Your task to perform on an android device: check the backup settings in the google photos Image 0: 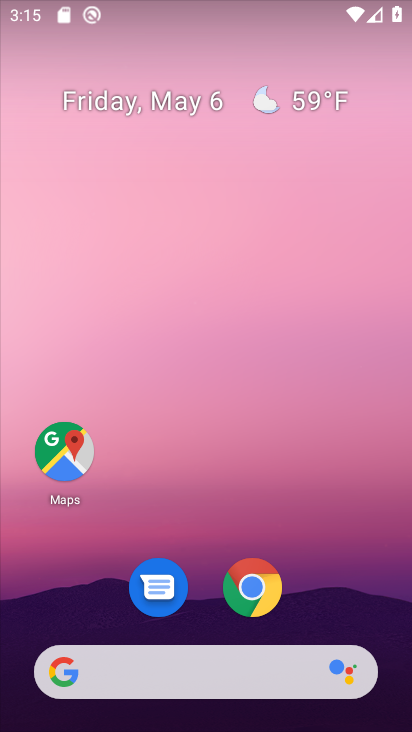
Step 0: drag from (295, 491) to (303, 11)
Your task to perform on an android device: check the backup settings in the google photos Image 1: 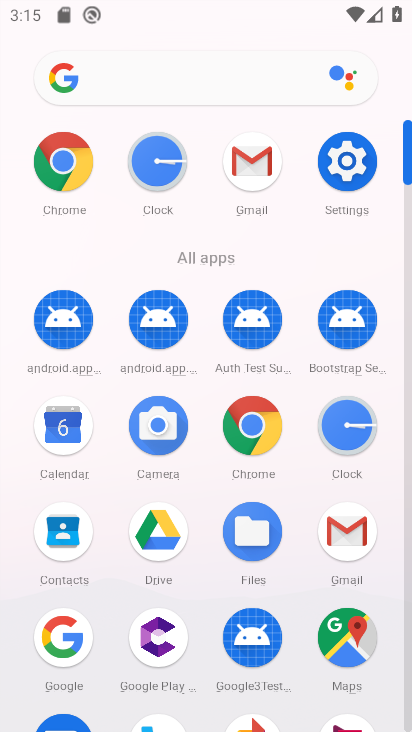
Step 1: drag from (279, 569) to (299, 115)
Your task to perform on an android device: check the backup settings in the google photos Image 2: 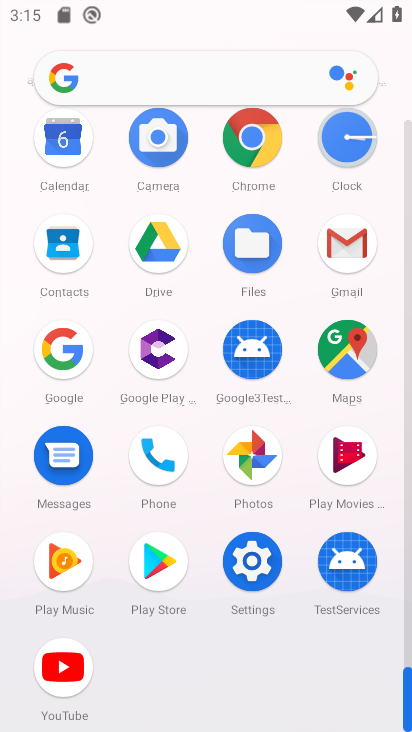
Step 2: click (238, 435)
Your task to perform on an android device: check the backup settings in the google photos Image 3: 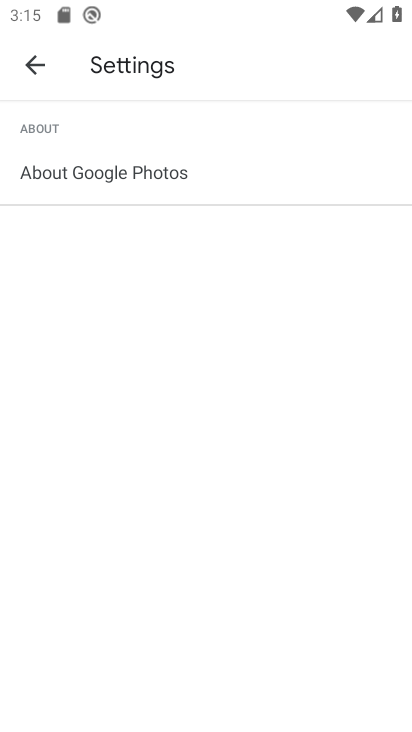
Step 3: click (41, 68)
Your task to perform on an android device: check the backup settings in the google photos Image 4: 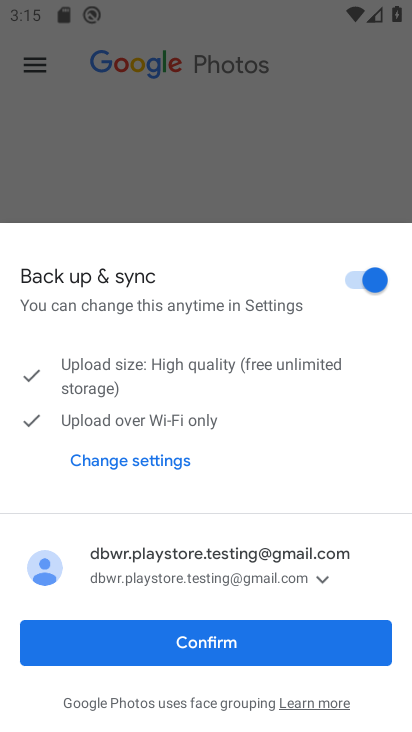
Step 4: click (212, 641)
Your task to perform on an android device: check the backup settings in the google photos Image 5: 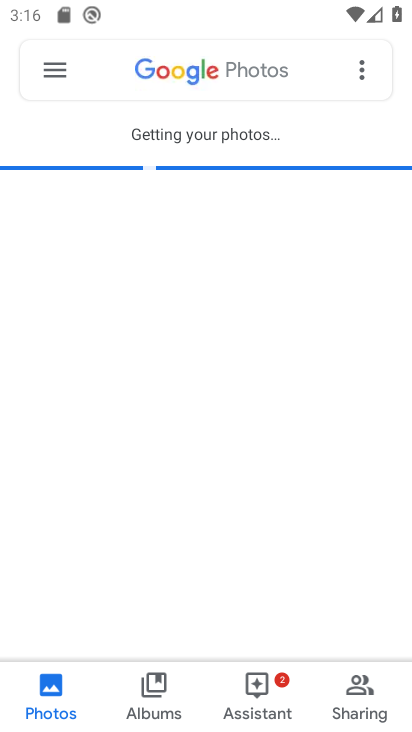
Step 5: click (52, 75)
Your task to perform on an android device: check the backup settings in the google photos Image 6: 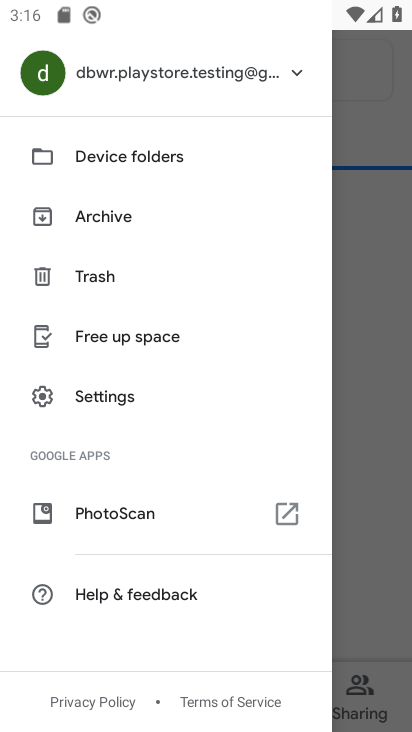
Step 6: click (124, 389)
Your task to perform on an android device: check the backup settings in the google photos Image 7: 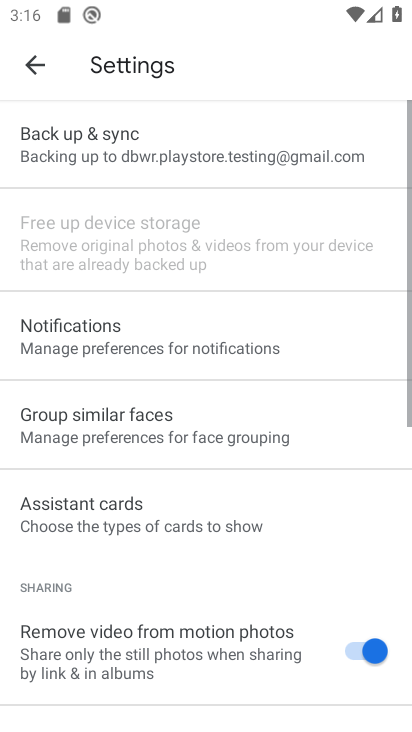
Step 7: click (175, 150)
Your task to perform on an android device: check the backup settings in the google photos Image 8: 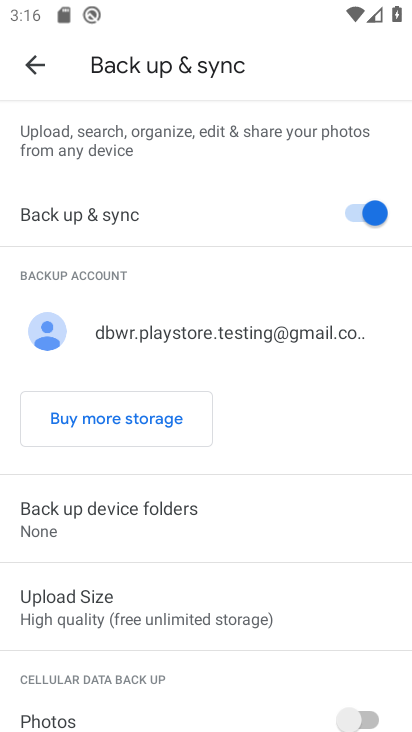
Step 8: task complete